Your task to perform on an android device: Check the weather Image 0: 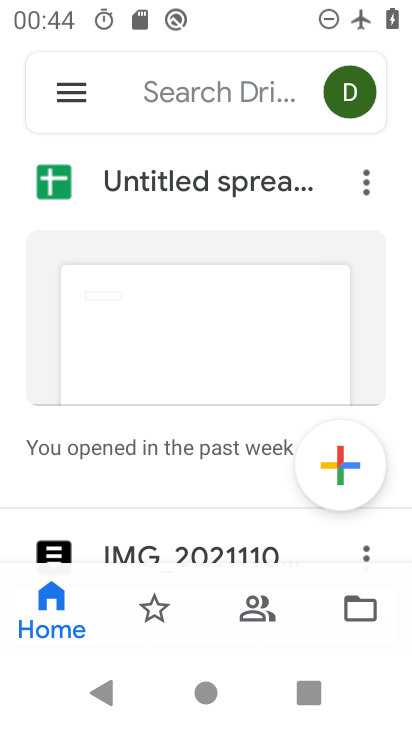
Step 0: press home button
Your task to perform on an android device: Check the weather Image 1: 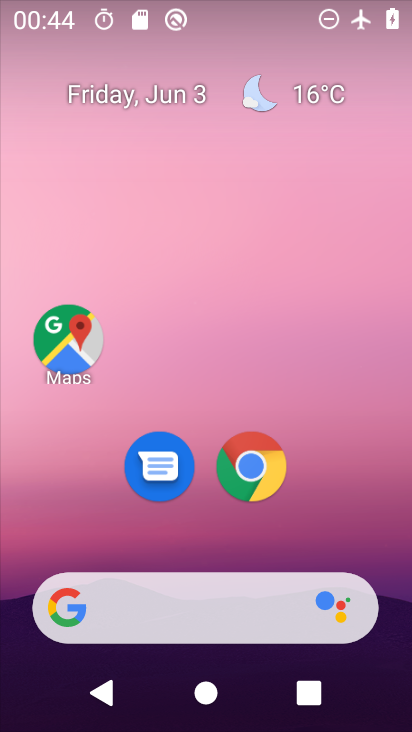
Step 1: drag from (224, 550) to (226, 175)
Your task to perform on an android device: Check the weather Image 2: 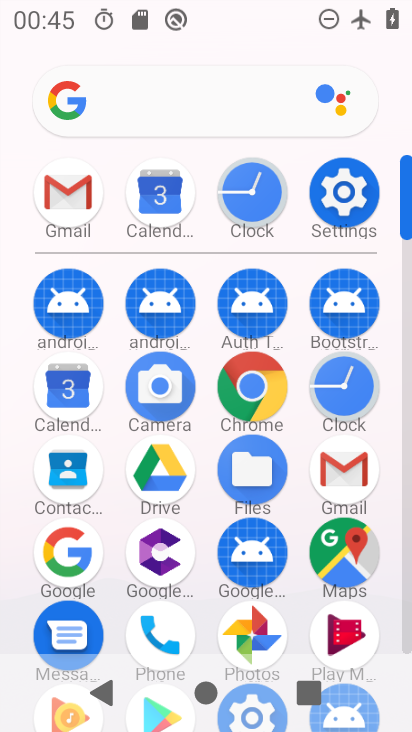
Step 2: click (85, 551)
Your task to perform on an android device: Check the weather Image 3: 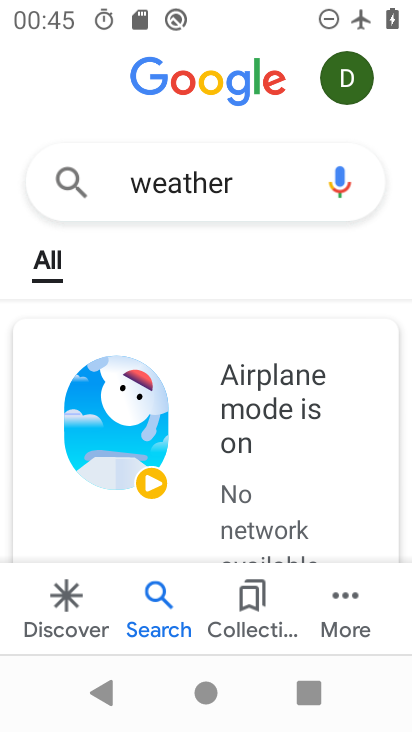
Step 3: task complete